Your task to perform on an android device: Search for seafood restaurants on Google Maps Image 0: 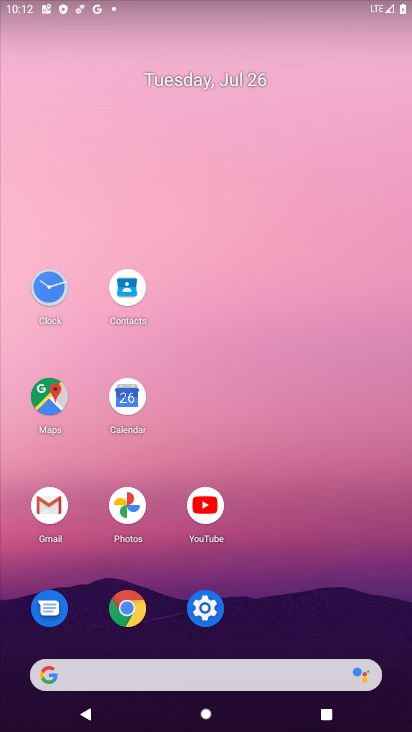
Step 0: click (46, 403)
Your task to perform on an android device: Search for seafood restaurants on Google Maps Image 1: 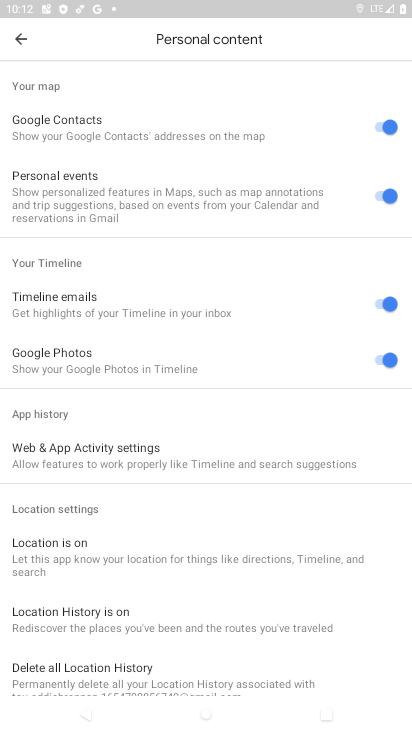
Step 1: click (18, 38)
Your task to perform on an android device: Search for seafood restaurants on Google Maps Image 2: 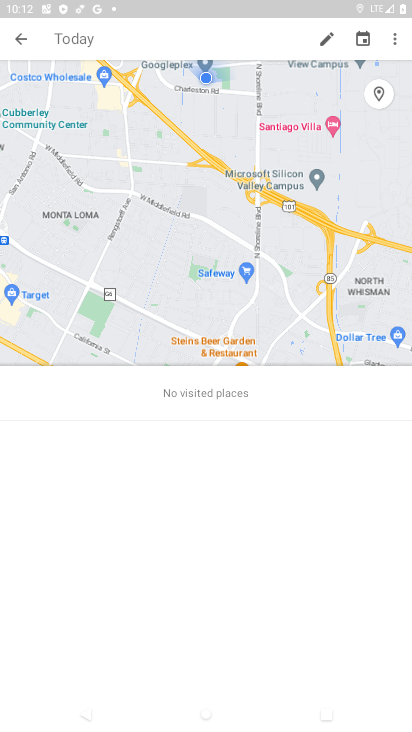
Step 2: click (28, 47)
Your task to perform on an android device: Search for seafood restaurants on Google Maps Image 3: 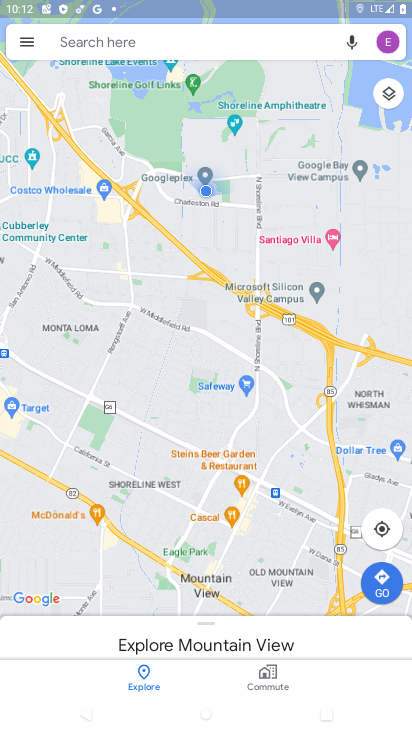
Step 3: click (120, 36)
Your task to perform on an android device: Search for seafood restaurants on Google Maps Image 4: 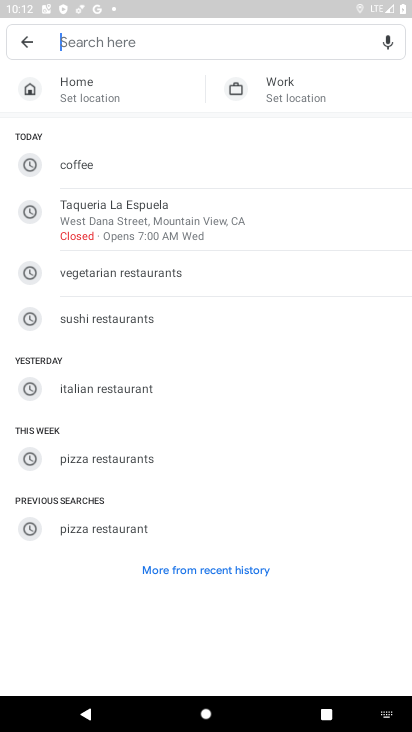
Step 4: type "seafood restaurants"
Your task to perform on an android device: Search for seafood restaurants on Google Maps Image 5: 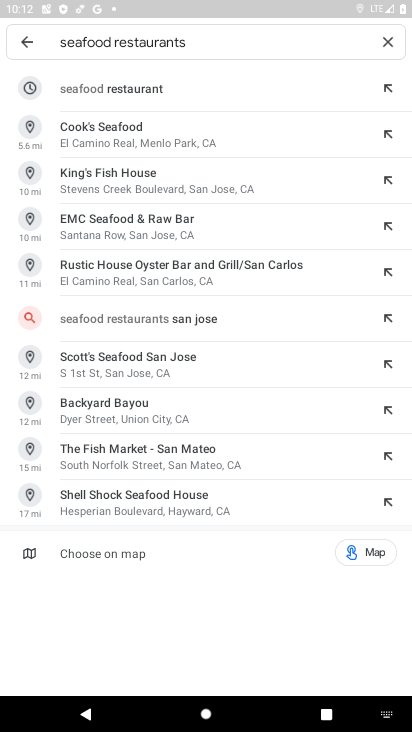
Step 5: click (138, 85)
Your task to perform on an android device: Search for seafood restaurants on Google Maps Image 6: 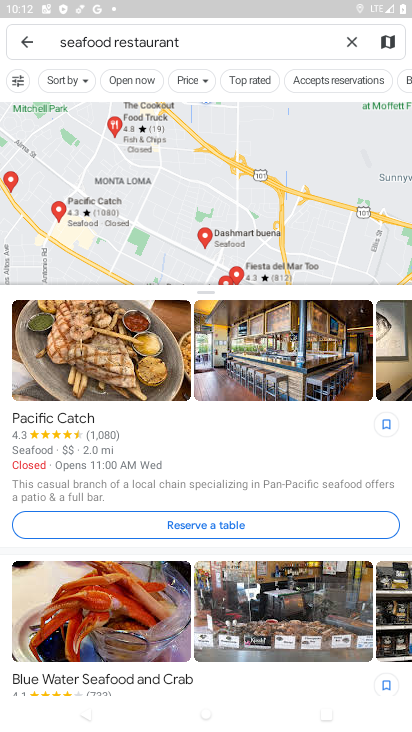
Step 6: task complete